Your task to perform on an android device: See recent photos Image 0: 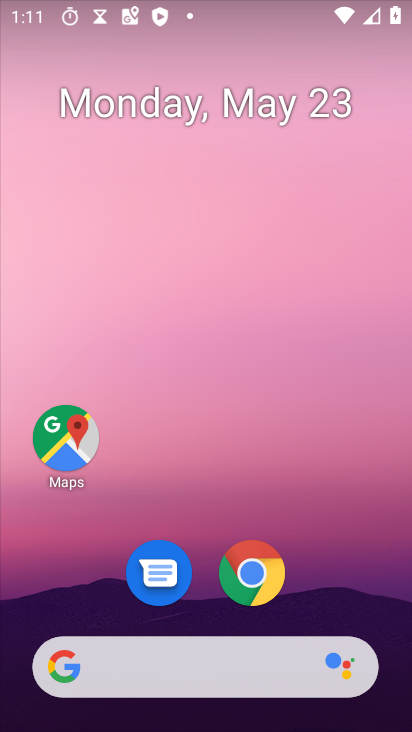
Step 0: press home button
Your task to perform on an android device: See recent photos Image 1: 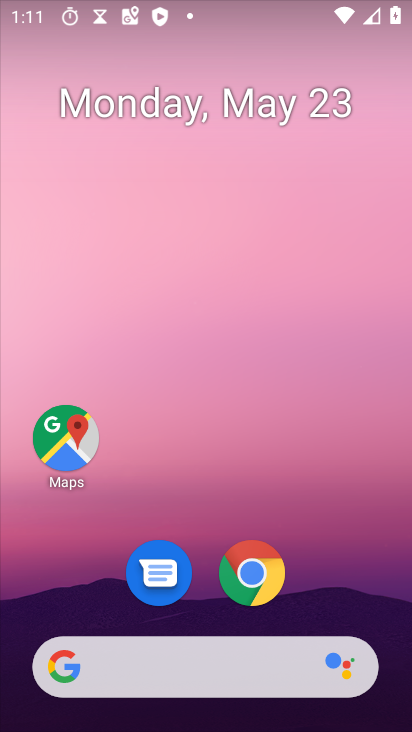
Step 1: drag from (177, 663) to (325, 53)
Your task to perform on an android device: See recent photos Image 2: 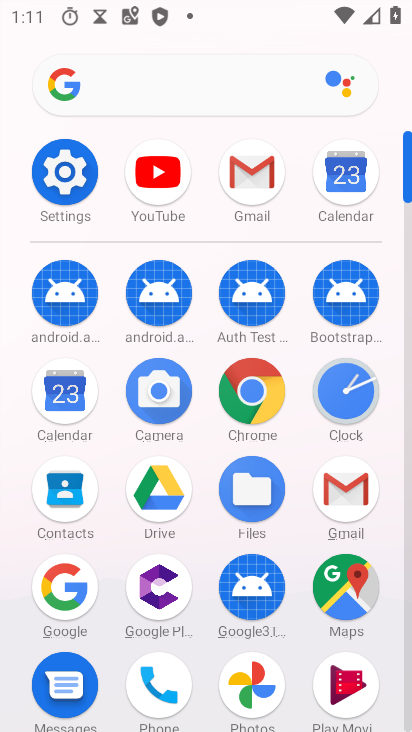
Step 2: click (252, 674)
Your task to perform on an android device: See recent photos Image 3: 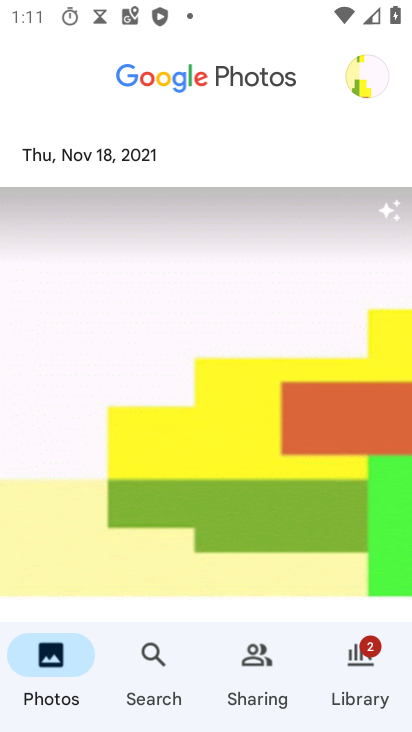
Step 3: click (370, 691)
Your task to perform on an android device: See recent photos Image 4: 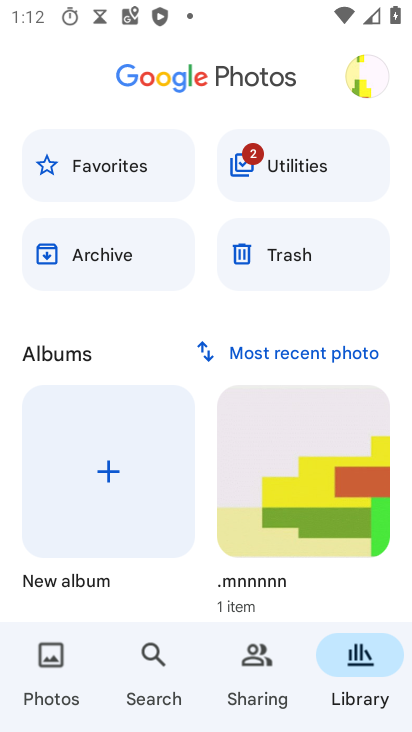
Step 4: task complete